Your task to perform on an android device: What's the news in the Bahamas? Image 0: 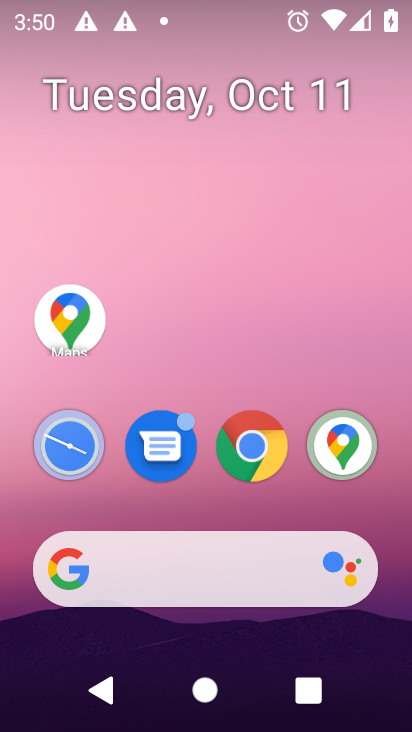
Step 0: click (254, 449)
Your task to perform on an android device: What's the news in the Bahamas? Image 1: 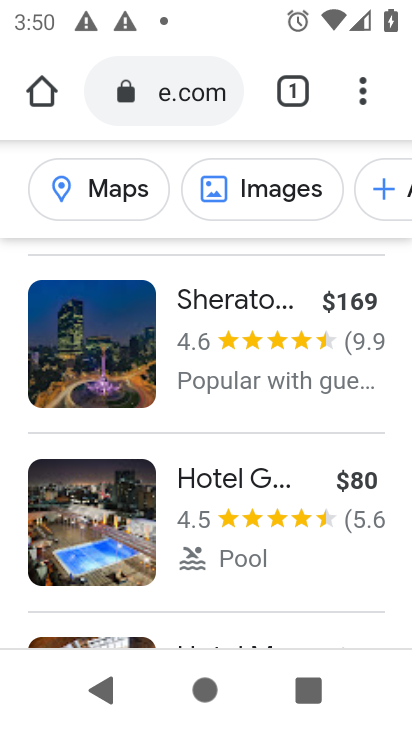
Step 1: click (201, 98)
Your task to perform on an android device: What's the news in the Bahamas? Image 2: 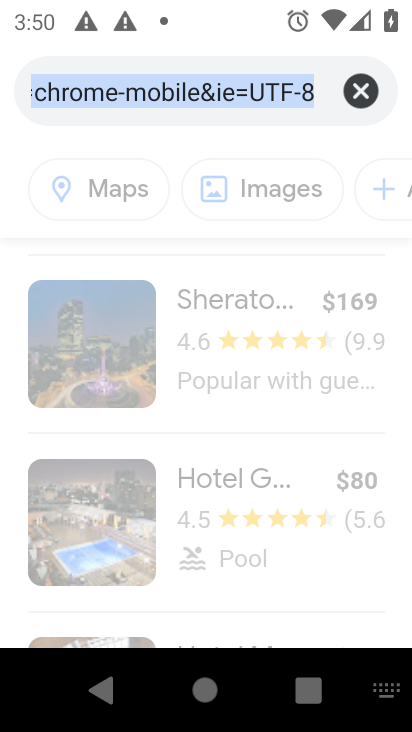
Step 2: click (346, 96)
Your task to perform on an android device: What's the news in the Bahamas? Image 3: 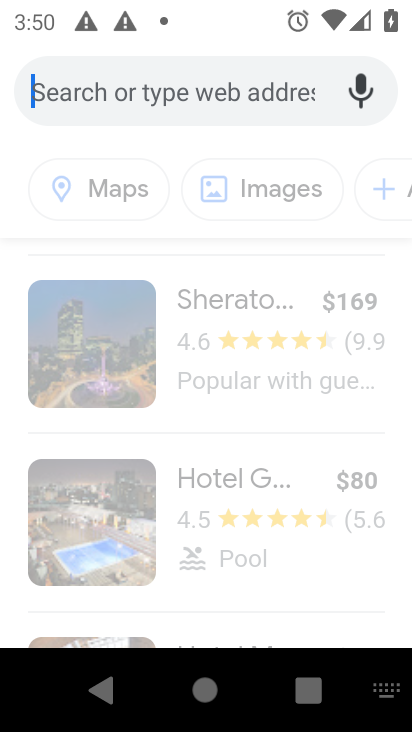
Step 3: type " Bahamas"
Your task to perform on an android device: What's the news in the Bahamas? Image 4: 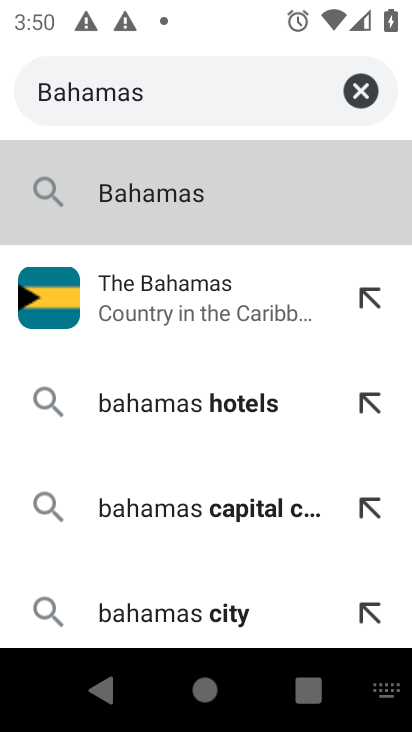
Step 4: click (145, 312)
Your task to perform on an android device: What's the news in the Bahamas? Image 5: 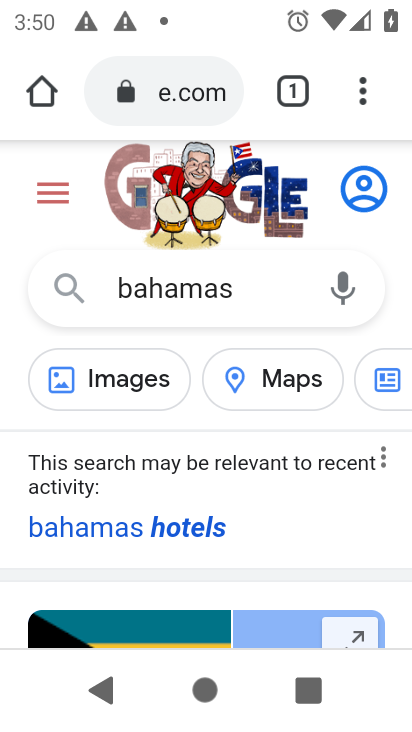
Step 5: drag from (275, 388) to (23, 371)
Your task to perform on an android device: What's the news in the Bahamas? Image 6: 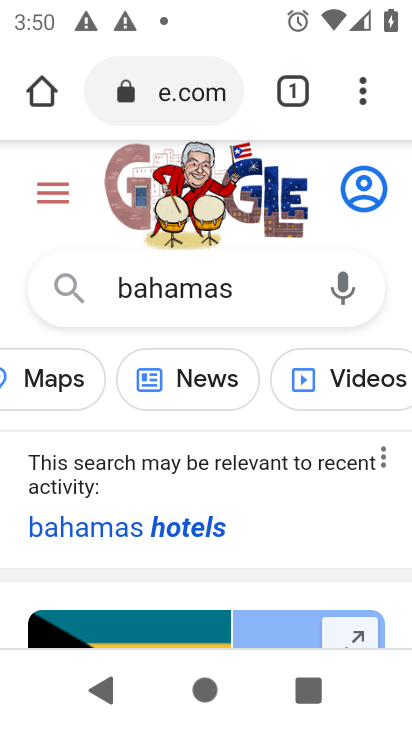
Step 6: click (147, 380)
Your task to perform on an android device: What's the news in the Bahamas? Image 7: 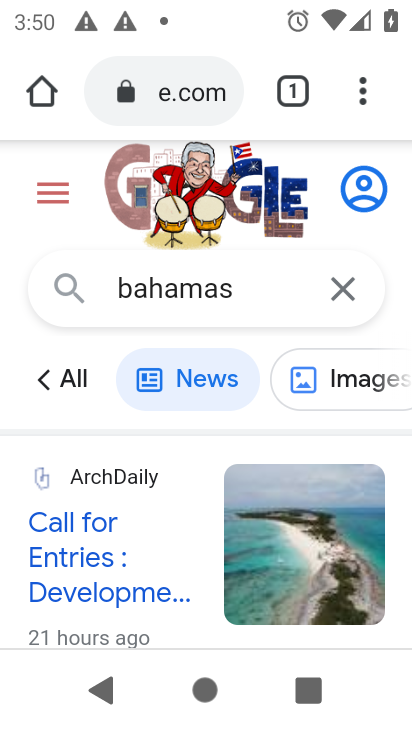
Step 7: click (81, 555)
Your task to perform on an android device: What's the news in the Bahamas? Image 8: 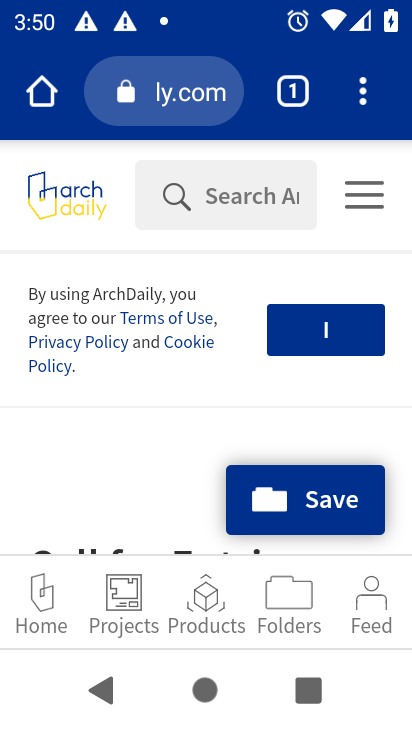
Step 8: task complete